Your task to perform on an android device: Play the last video I watched on Youtube Image 0: 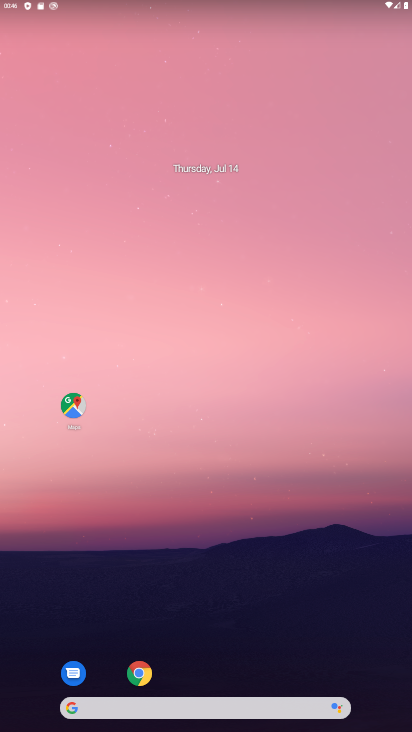
Step 0: drag from (261, 629) to (274, 210)
Your task to perform on an android device: Play the last video I watched on Youtube Image 1: 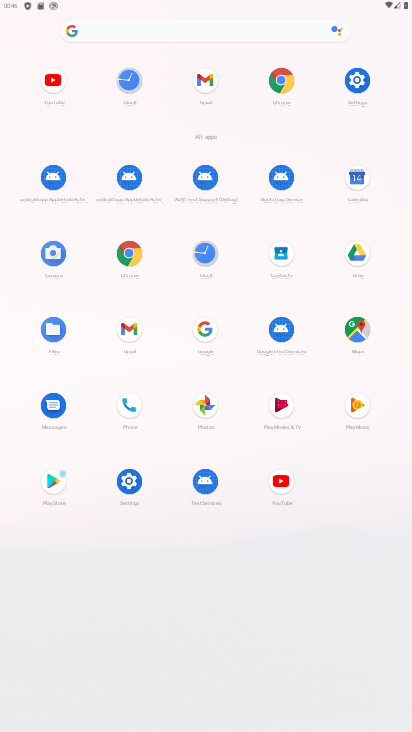
Step 1: click (284, 490)
Your task to perform on an android device: Play the last video I watched on Youtube Image 2: 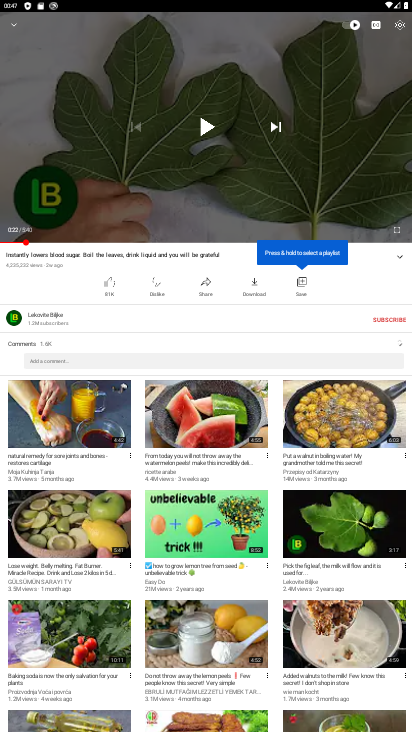
Step 2: click (15, 30)
Your task to perform on an android device: Play the last video I watched on Youtube Image 3: 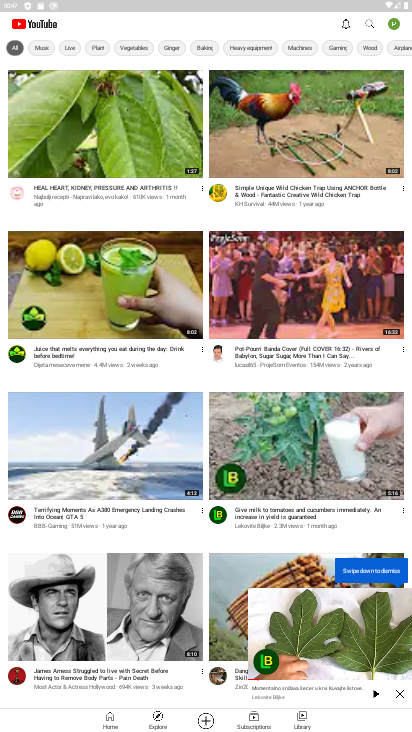
Step 3: click (291, 719)
Your task to perform on an android device: Play the last video I watched on Youtube Image 4: 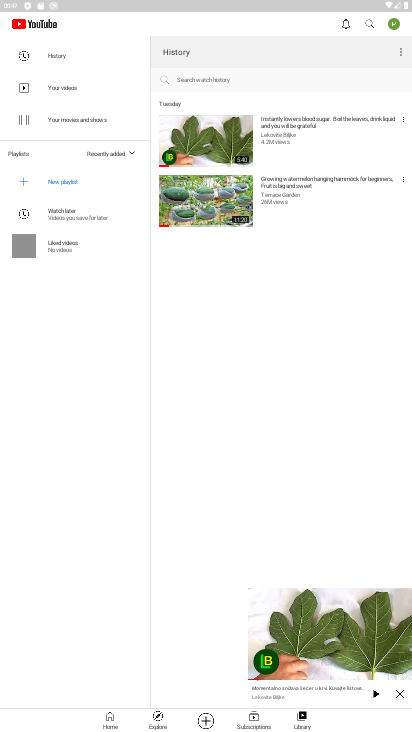
Step 4: click (232, 166)
Your task to perform on an android device: Play the last video I watched on Youtube Image 5: 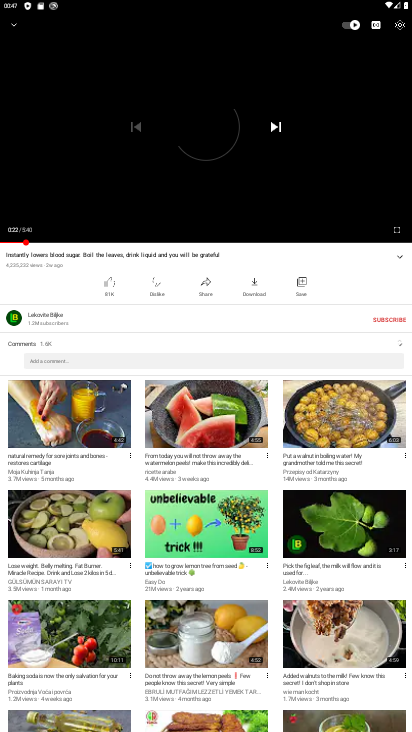
Step 5: task complete